Your task to perform on an android device: Open network settings Image 0: 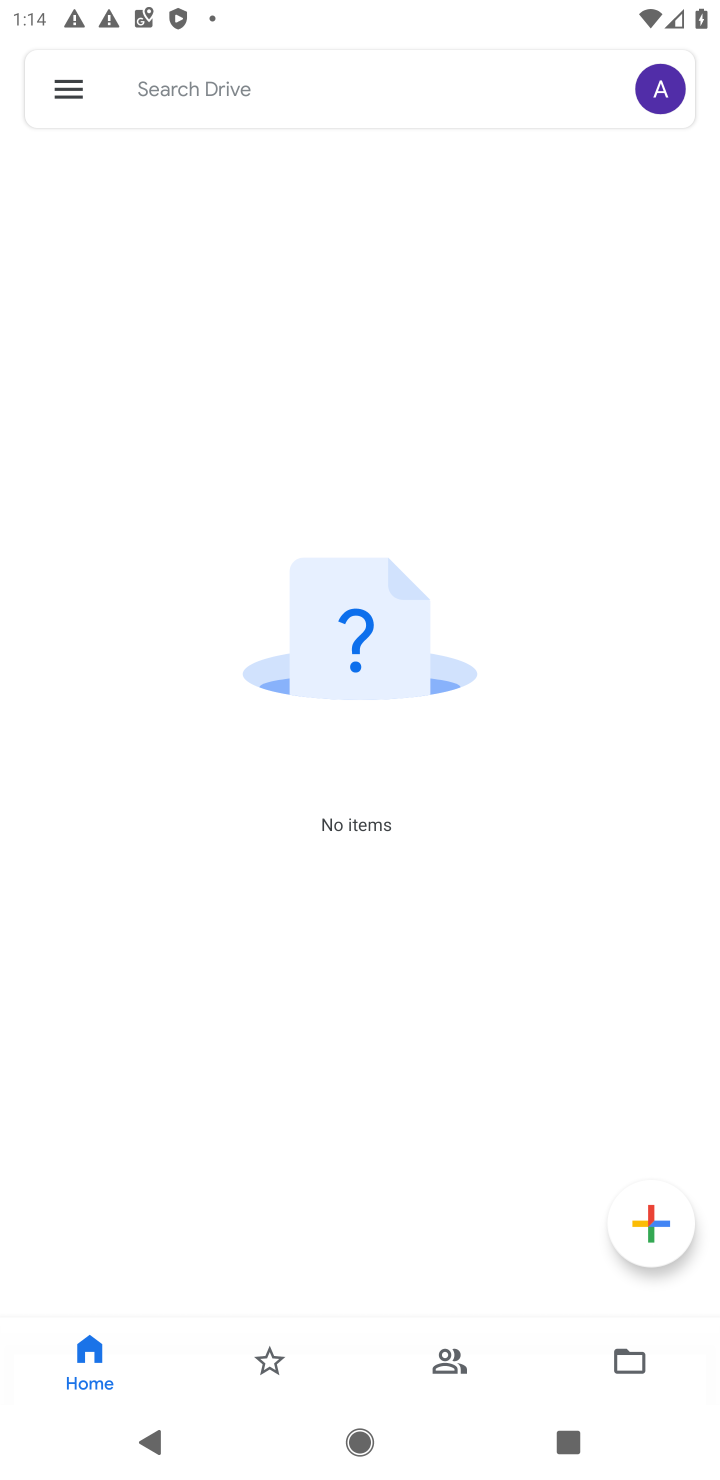
Step 0: press home button
Your task to perform on an android device: Open network settings Image 1: 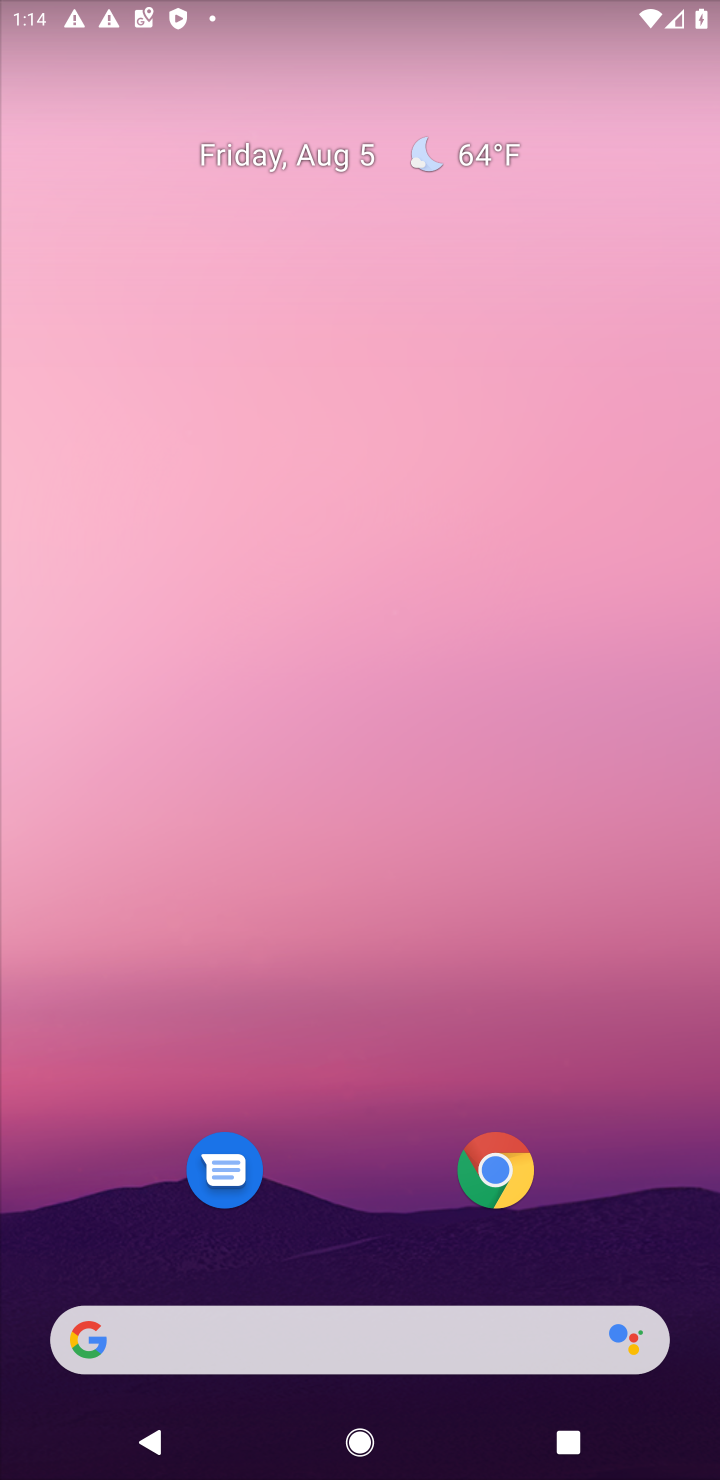
Step 1: drag from (191, 809) to (409, 101)
Your task to perform on an android device: Open network settings Image 2: 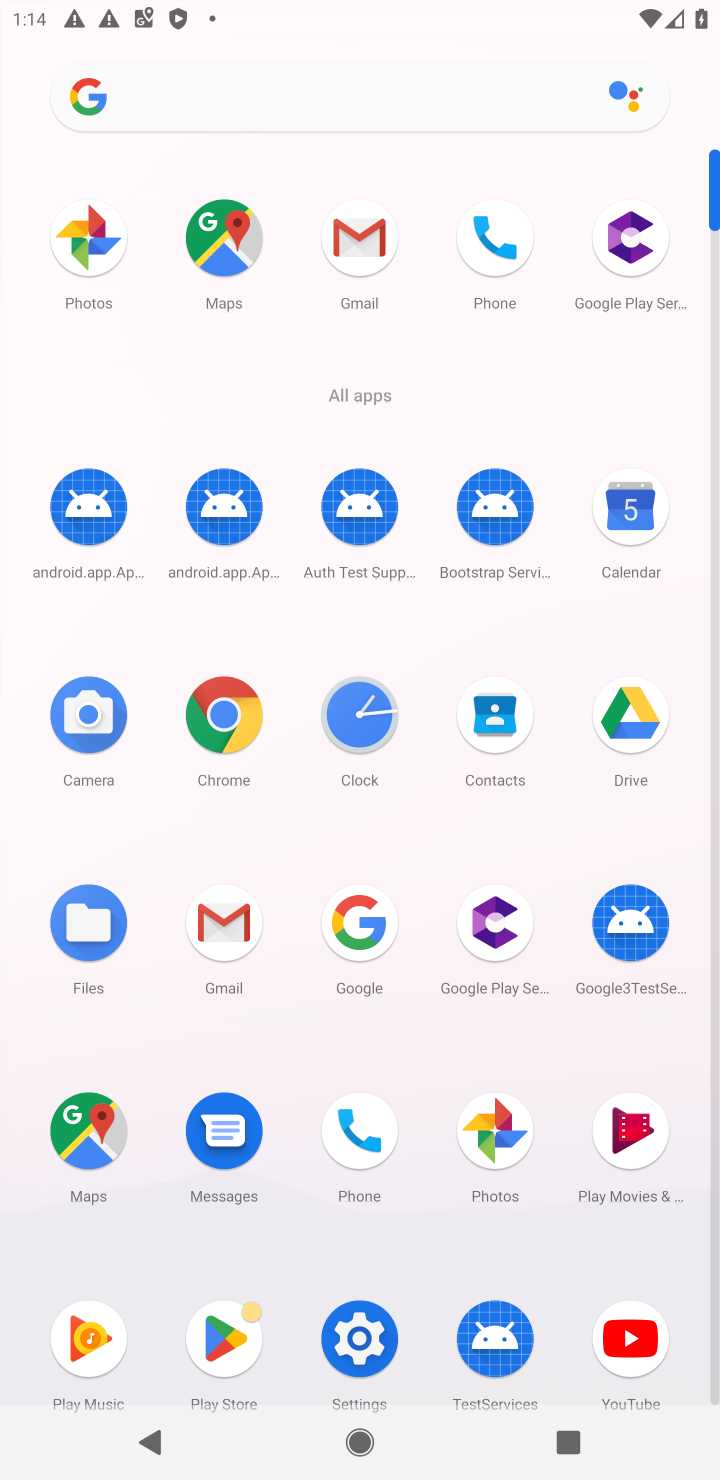
Step 2: click (349, 1334)
Your task to perform on an android device: Open network settings Image 3: 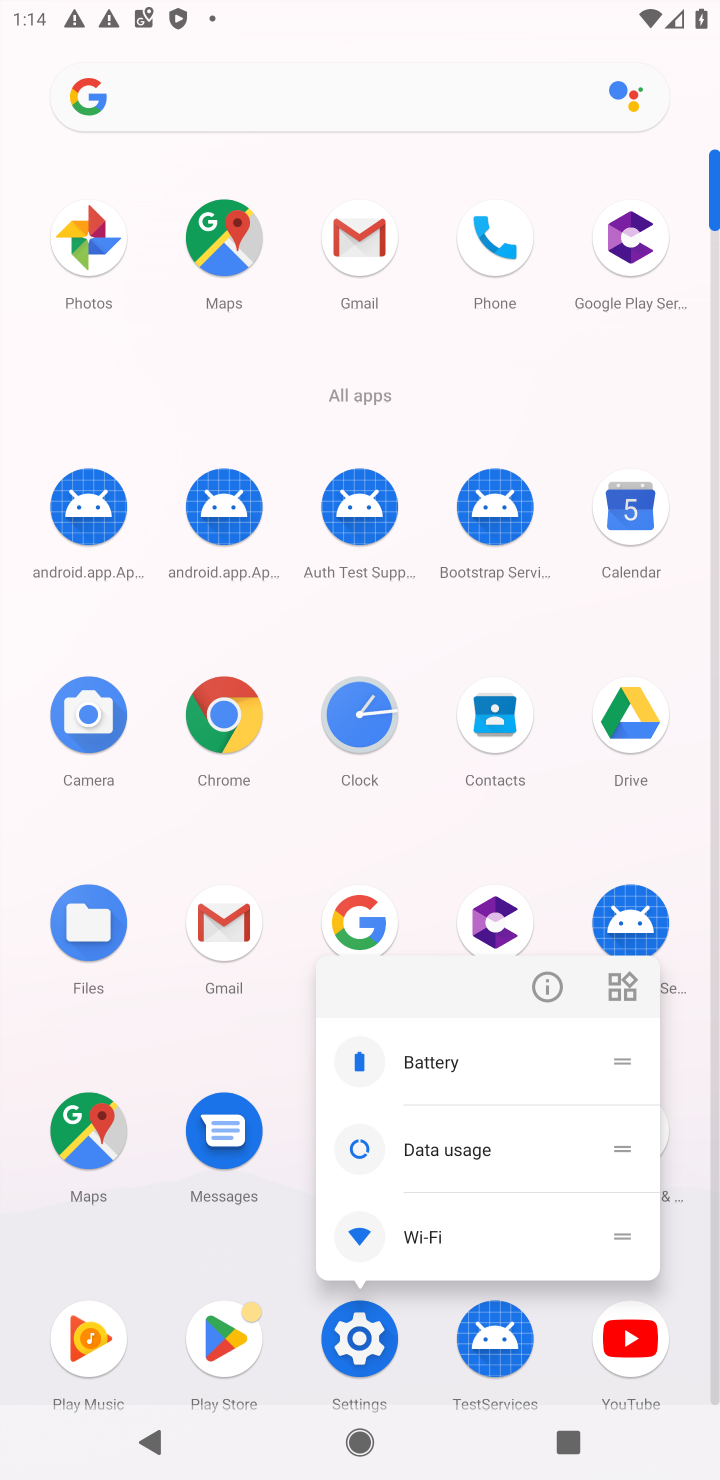
Step 3: click (354, 1332)
Your task to perform on an android device: Open network settings Image 4: 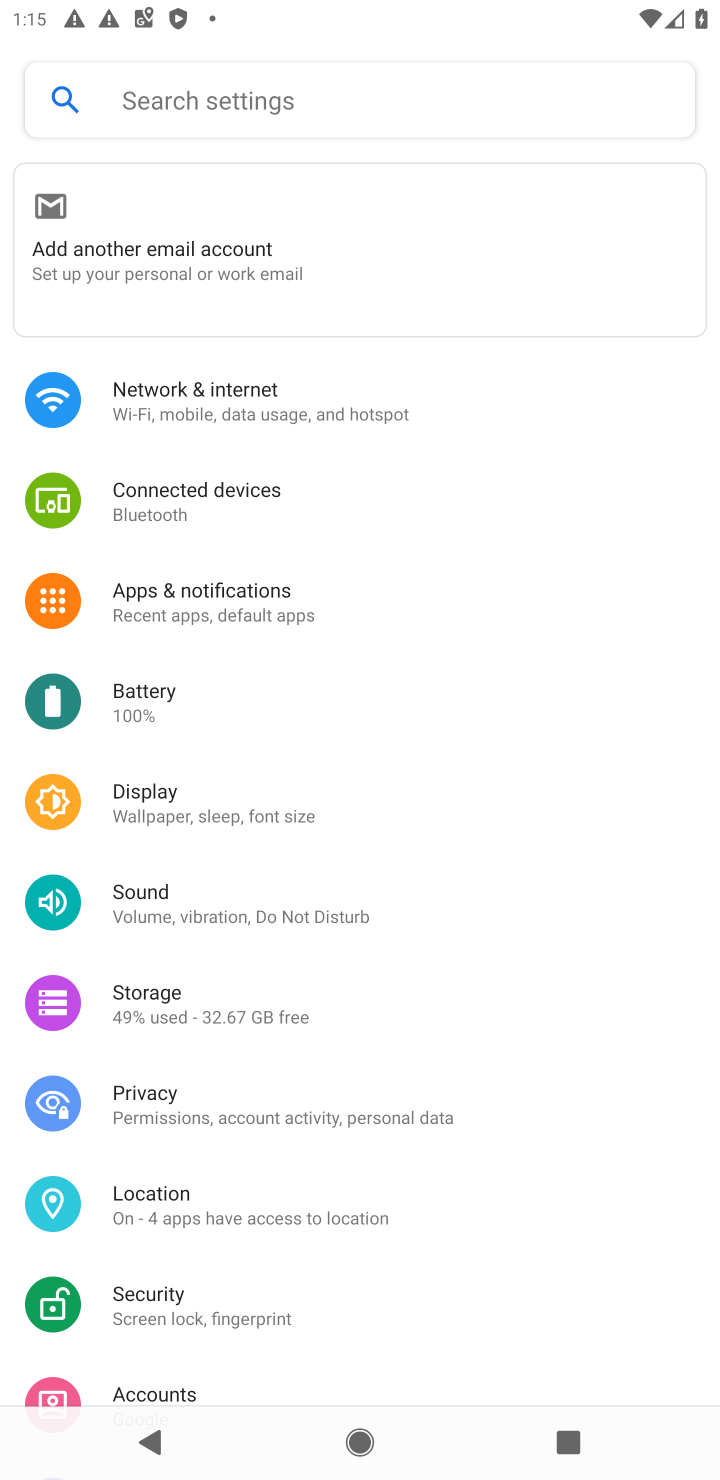
Step 4: click (354, 414)
Your task to perform on an android device: Open network settings Image 5: 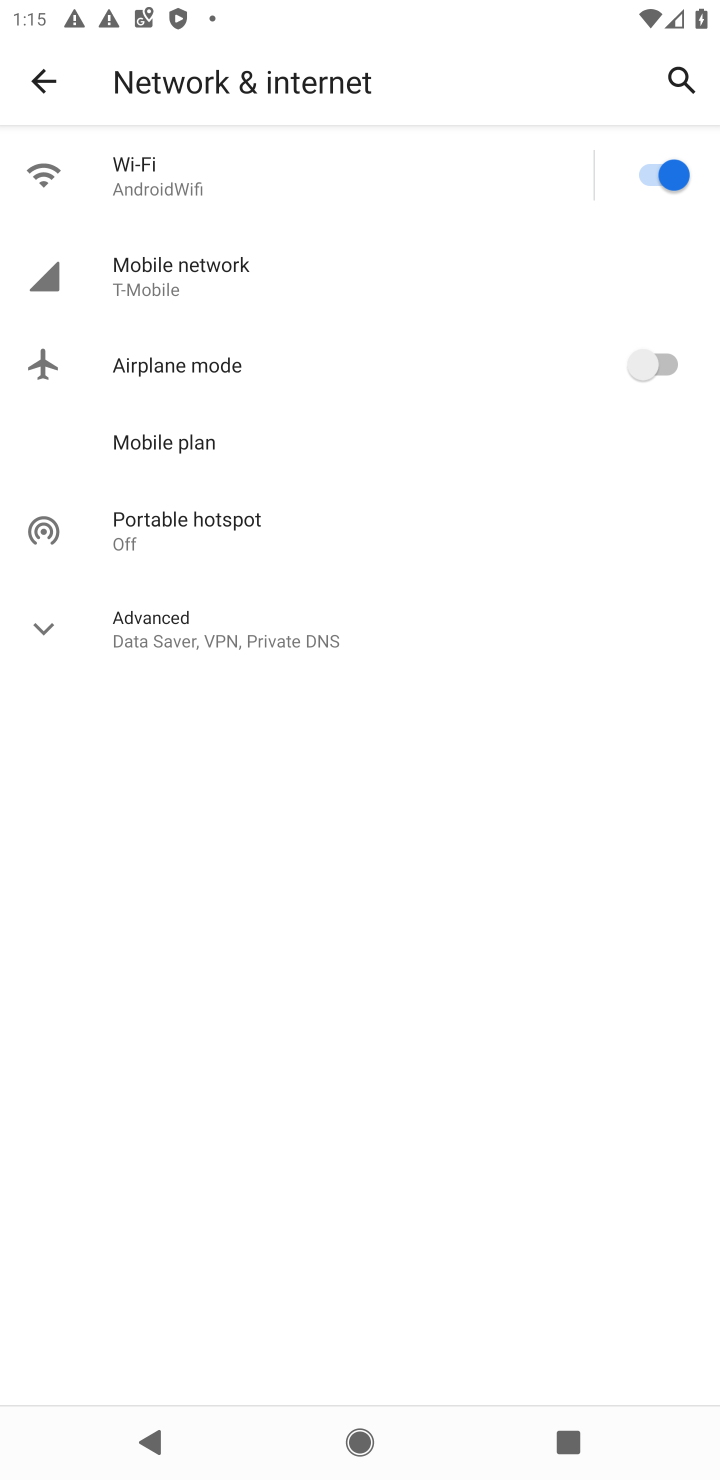
Step 5: click (118, 276)
Your task to perform on an android device: Open network settings Image 6: 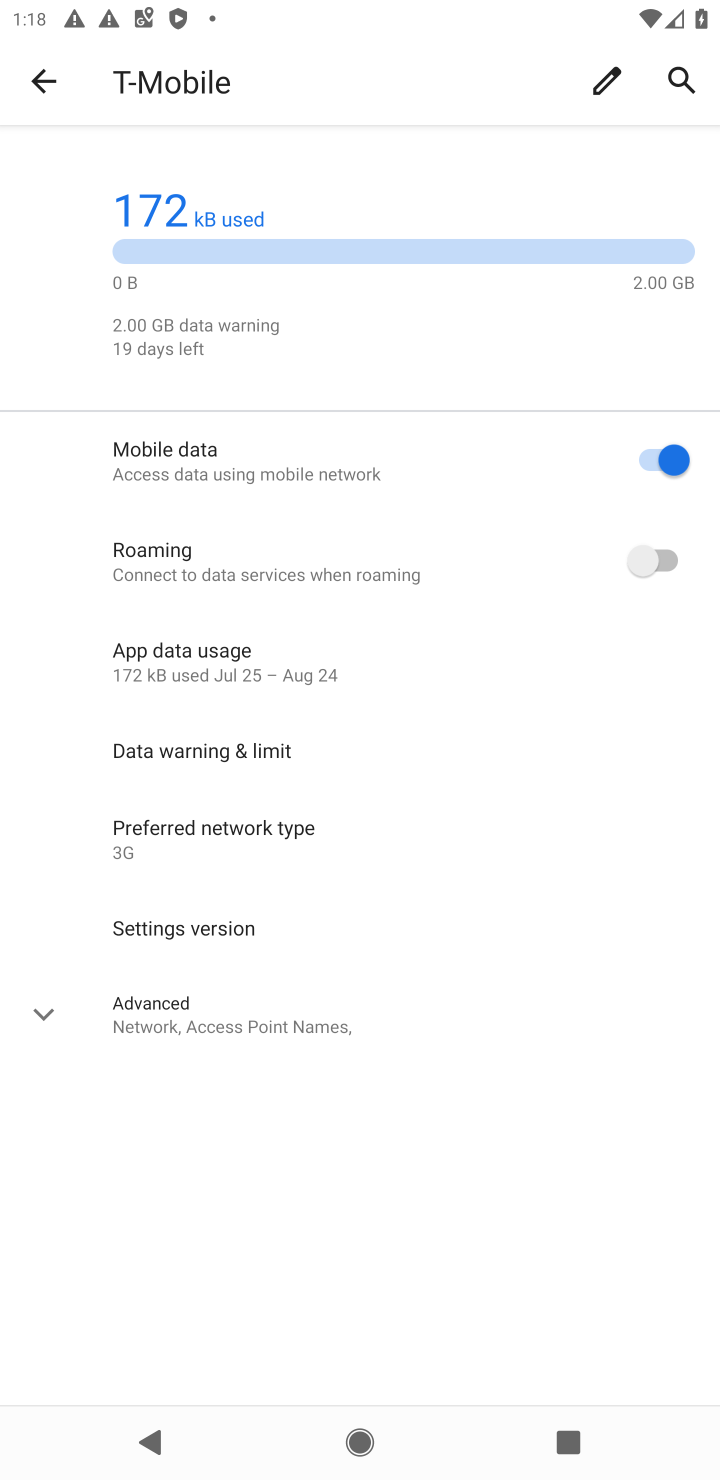
Step 6: task complete